Your task to perform on an android device: How much does a 2 bedroom apartment rent for in Seattle? Image 0: 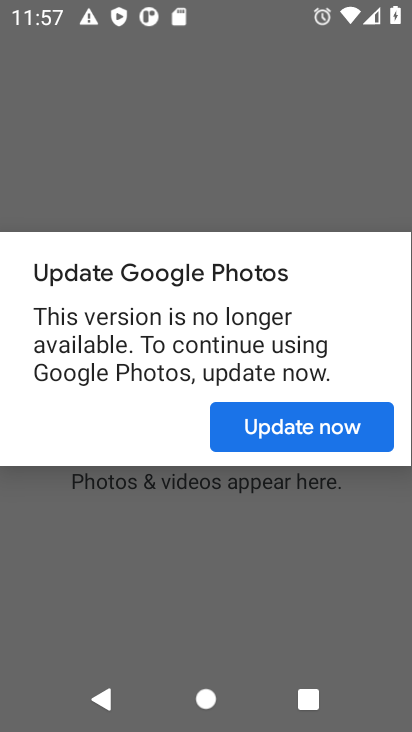
Step 0: press home button
Your task to perform on an android device: How much does a 2 bedroom apartment rent for in Seattle? Image 1: 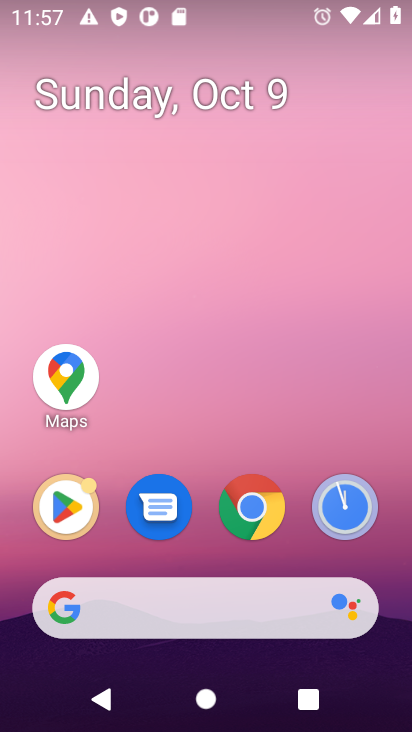
Step 1: press home button
Your task to perform on an android device: How much does a 2 bedroom apartment rent for in Seattle? Image 2: 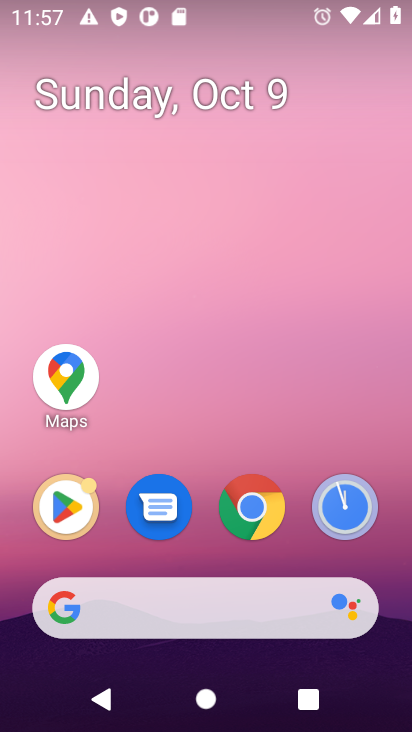
Step 2: click (208, 594)
Your task to perform on an android device: How much does a 2 bedroom apartment rent for in Seattle? Image 3: 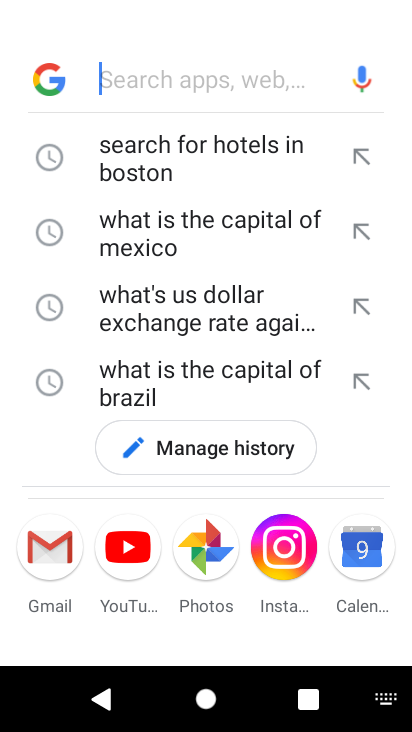
Step 3: type "2 bedroom apartment rent for in Seattle"
Your task to perform on an android device: How much does a 2 bedroom apartment rent for in Seattle? Image 4: 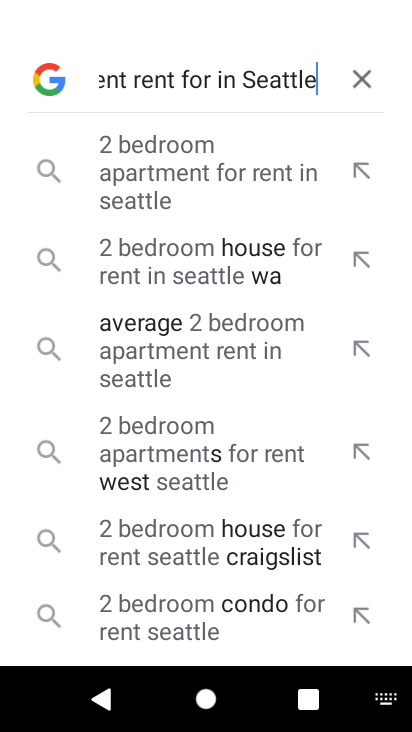
Step 4: press enter
Your task to perform on an android device: How much does a 2 bedroom apartment rent for in Seattle? Image 5: 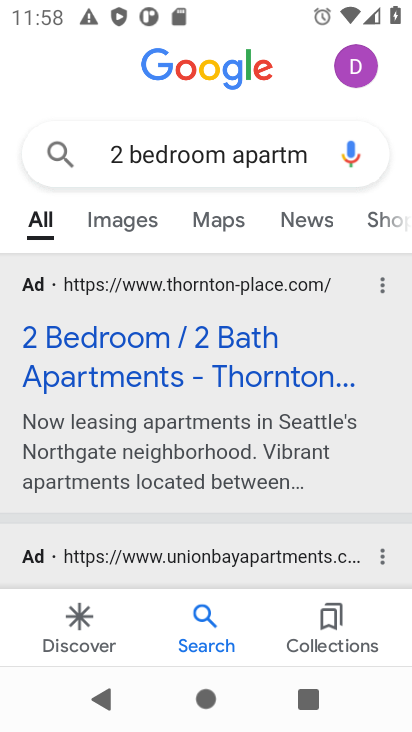
Step 5: click (265, 352)
Your task to perform on an android device: How much does a 2 bedroom apartment rent for in Seattle? Image 6: 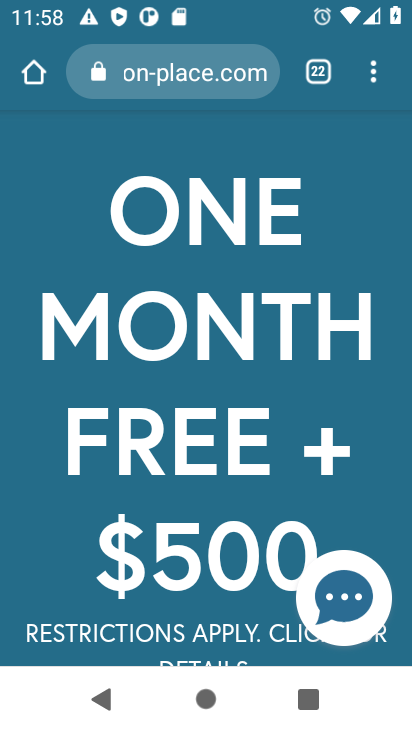
Step 6: task complete